Your task to perform on an android device: turn off data saver in the chrome app Image 0: 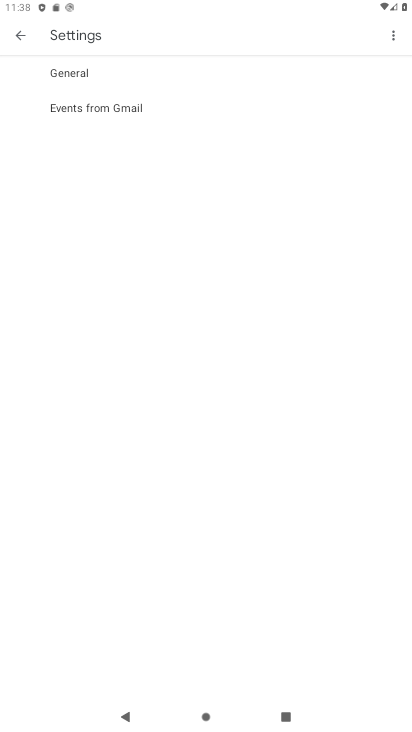
Step 0: press home button
Your task to perform on an android device: turn off data saver in the chrome app Image 1: 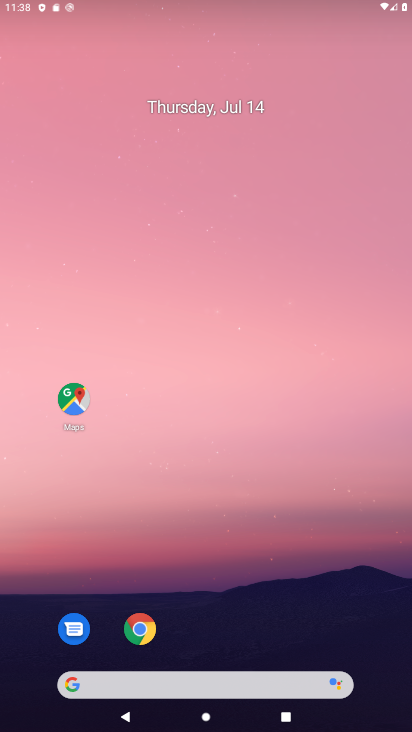
Step 1: drag from (283, 662) to (252, 111)
Your task to perform on an android device: turn off data saver in the chrome app Image 2: 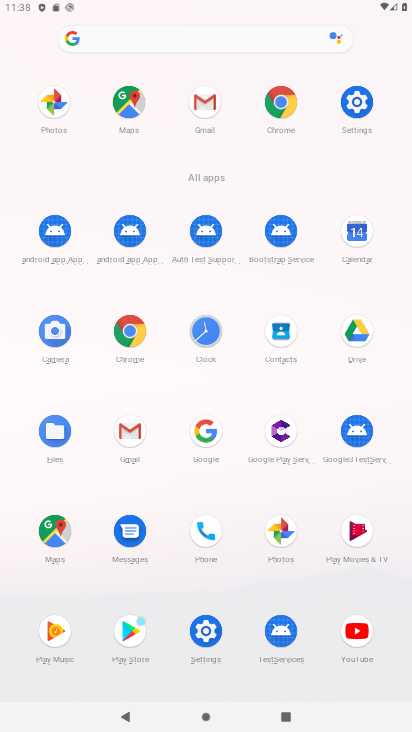
Step 2: click (277, 106)
Your task to perform on an android device: turn off data saver in the chrome app Image 3: 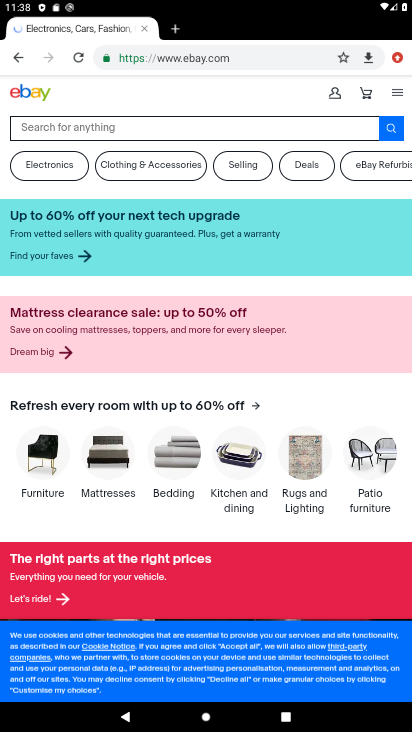
Step 3: drag from (407, 52) to (278, 412)
Your task to perform on an android device: turn off data saver in the chrome app Image 4: 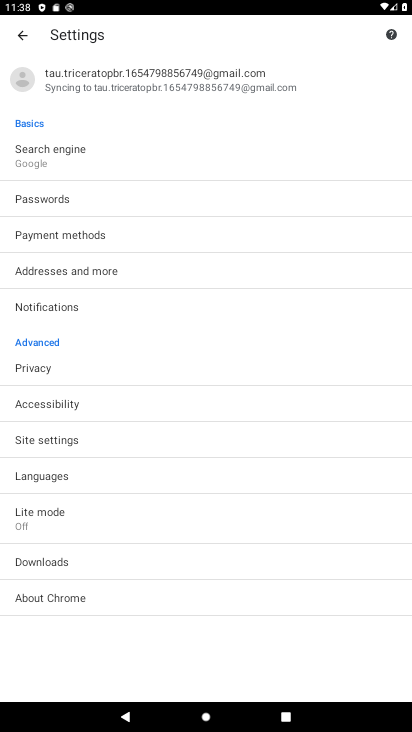
Step 4: click (49, 513)
Your task to perform on an android device: turn off data saver in the chrome app Image 5: 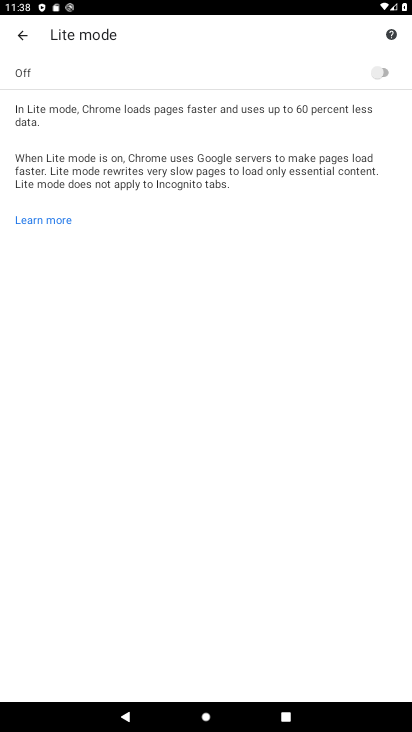
Step 5: task complete